Your task to perform on an android device: change your default location settings in chrome Image 0: 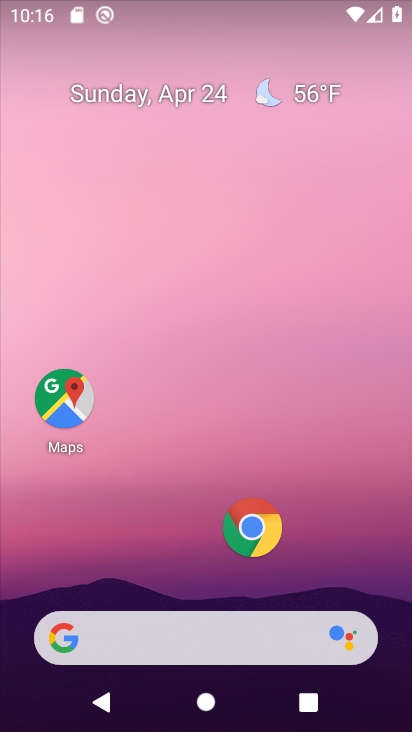
Step 0: click (264, 533)
Your task to perform on an android device: change your default location settings in chrome Image 1: 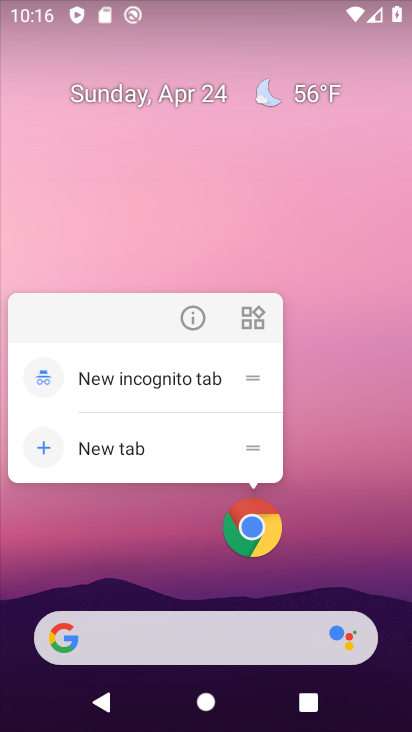
Step 1: click (260, 534)
Your task to perform on an android device: change your default location settings in chrome Image 2: 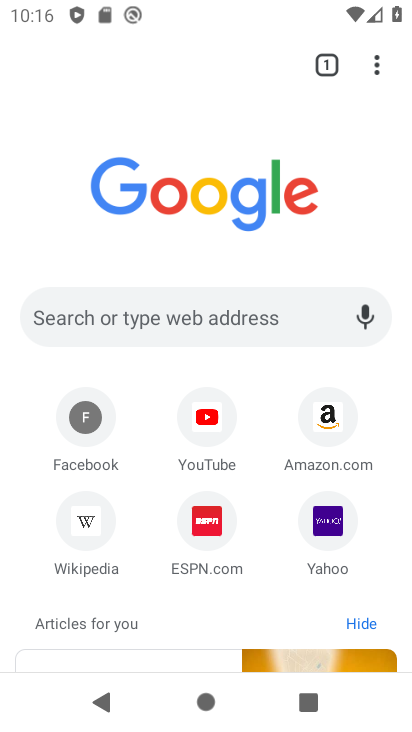
Step 2: click (391, 79)
Your task to perform on an android device: change your default location settings in chrome Image 3: 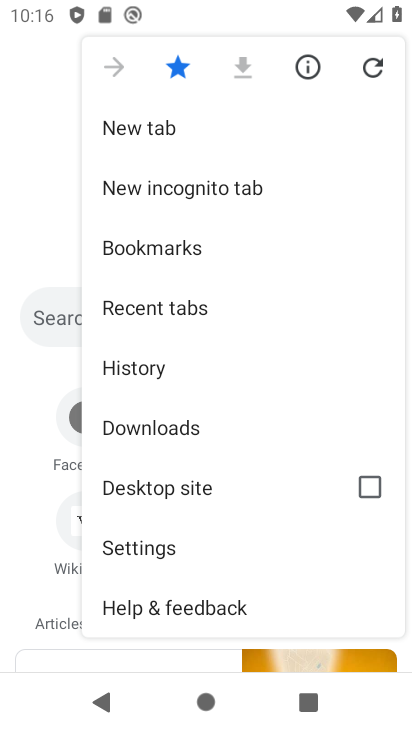
Step 3: click (158, 552)
Your task to perform on an android device: change your default location settings in chrome Image 4: 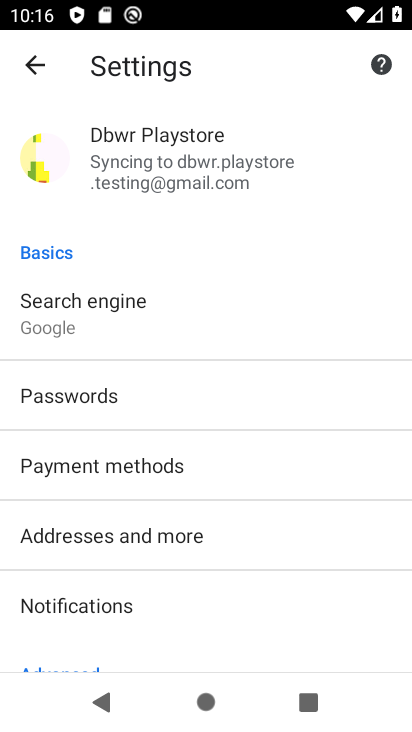
Step 4: drag from (106, 589) to (230, 117)
Your task to perform on an android device: change your default location settings in chrome Image 5: 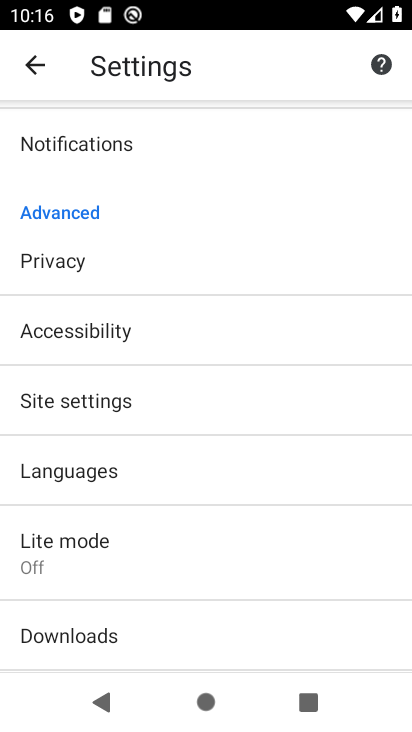
Step 5: click (89, 405)
Your task to perform on an android device: change your default location settings in chrome Image 6: 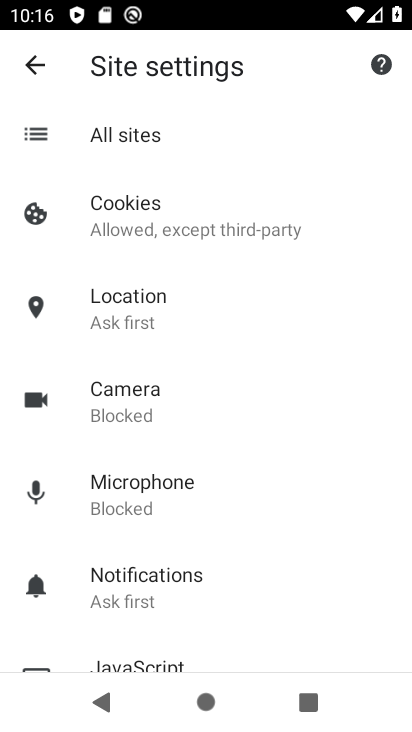
Step 6: click (139, 323)
Your task to perform on an android device: change your default location settings in chrome Image 7: 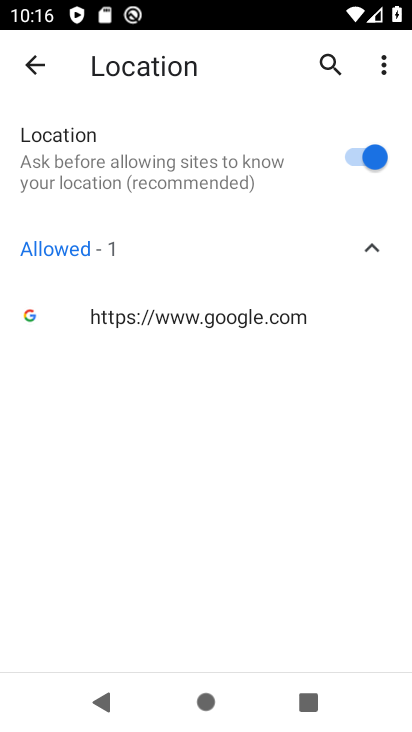
Step 7: click (348, 148)
Your task to perform on an android device: change your default location settings in chrome Image 8: 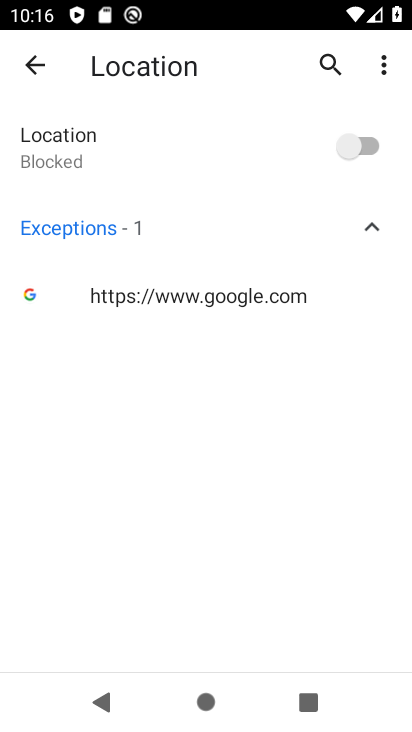
Step 8: task complete